Your task to perform on an android device: check out phone information Image 0: 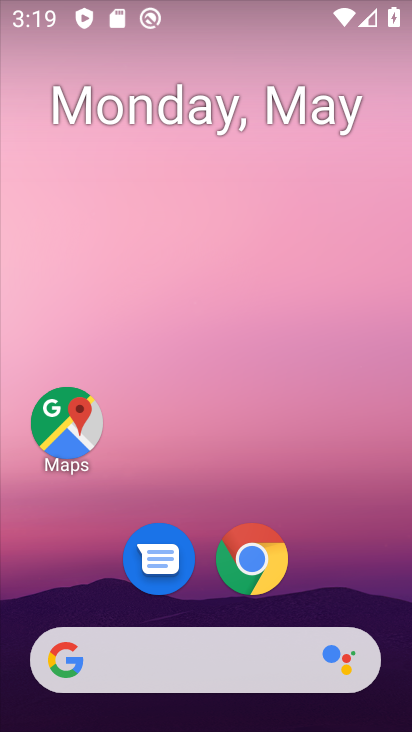
Step 0: drag from (251, 685) to (187, 13)
Your task to perform on an android device: check out phone information Image 1: 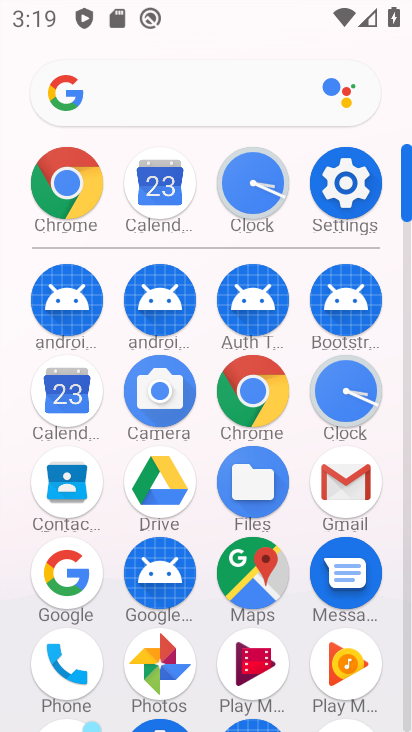
Step 1: click (338, 175)
Your task to perform on an android device: check out phone information Image 2: 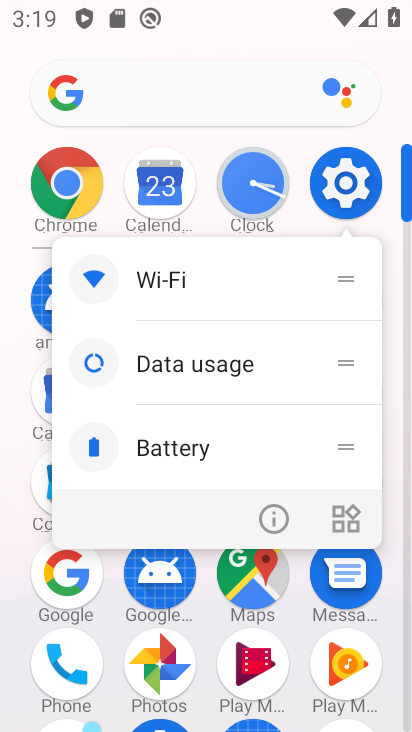
Step 2: click (346, 191)
Your task to perform on an android device: check out phone information Image 3: 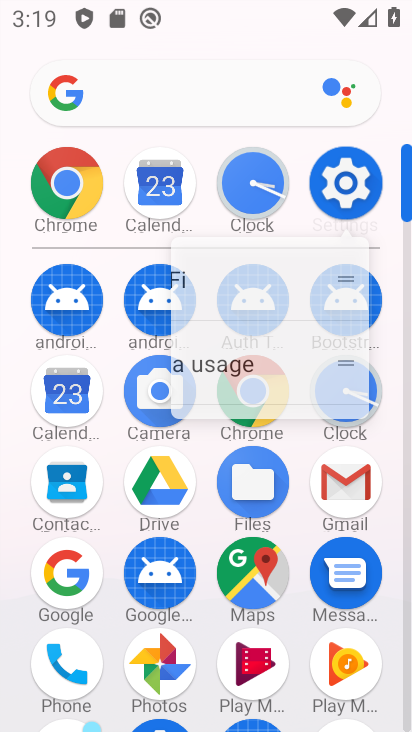
Step 3: click (346, 190)
Your task to perform on an android device: check out phone information Image 4: 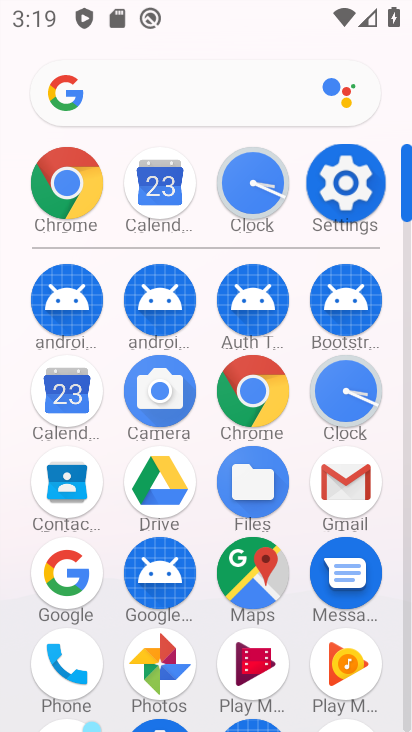
Step 4: click (346, 188)
Your task to perform on an android device: check out phone information Image 5: 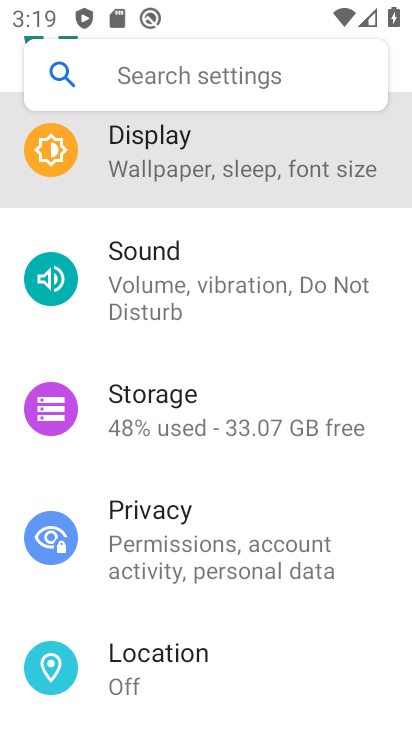
Step 5: click (346, 188)
Your task to perform on an android device: check out phone information Image 6: 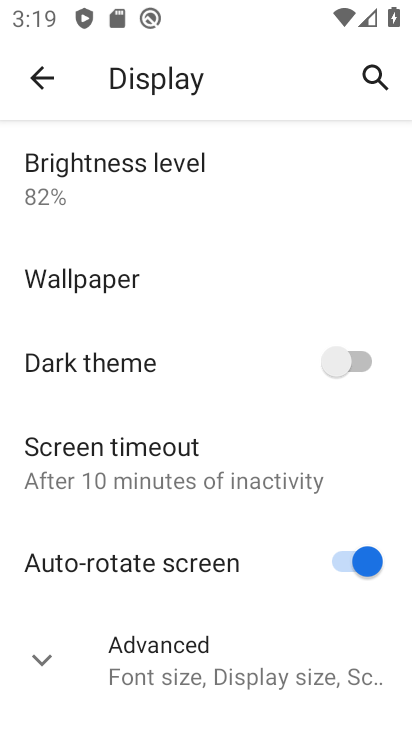
Step 6: click (38, 68)
Your task to perform on an android device: check out phone information Image 7: 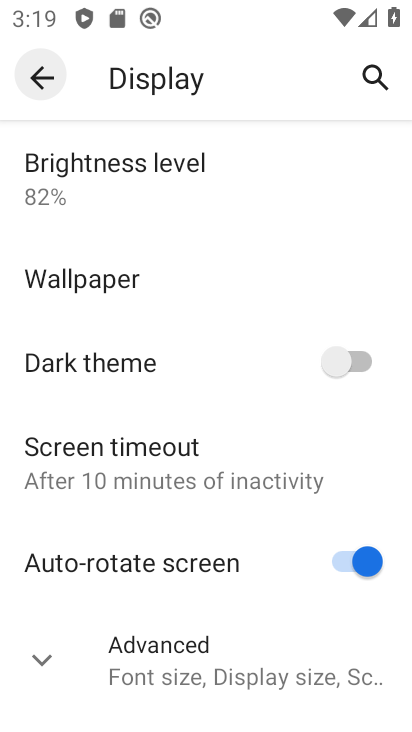
Step 7: click (38, 68)
Your task to perform on an android device: check out phone information Image 8: 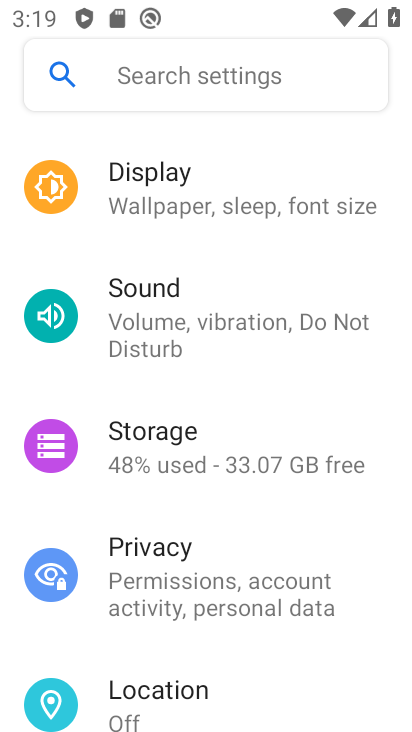
Step 8: click (38, 68)
Your task to perform on an android device: check out phone information Image 9: 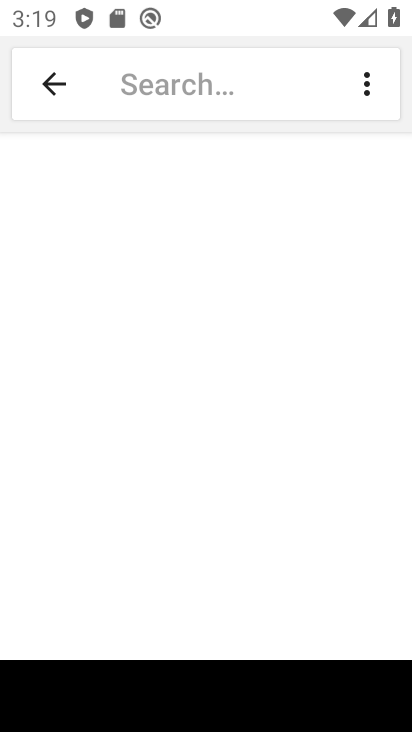
Step 9: click (48, 93)
Your task to perform on an android device: check out phone information Image 10: 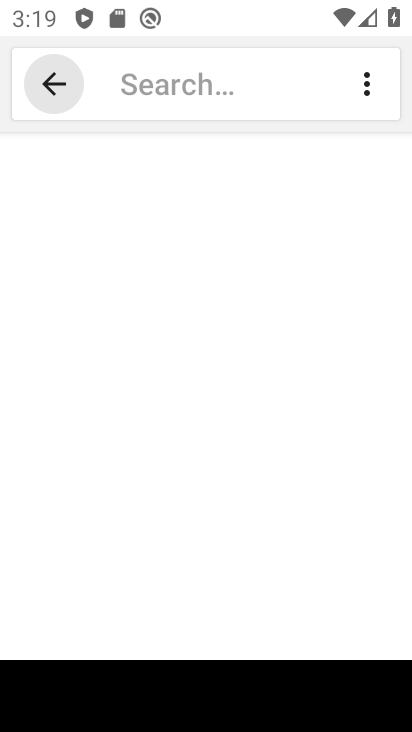
Step 10: click (47, 84)
Your task to perform on an android device: check out phone information Image 11: 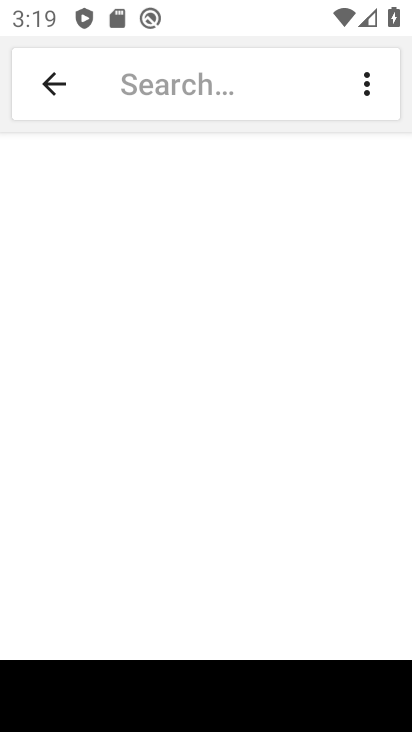
Step 11: click (48, 100)
Your task to perform on an android device: check out phone information Image 12: 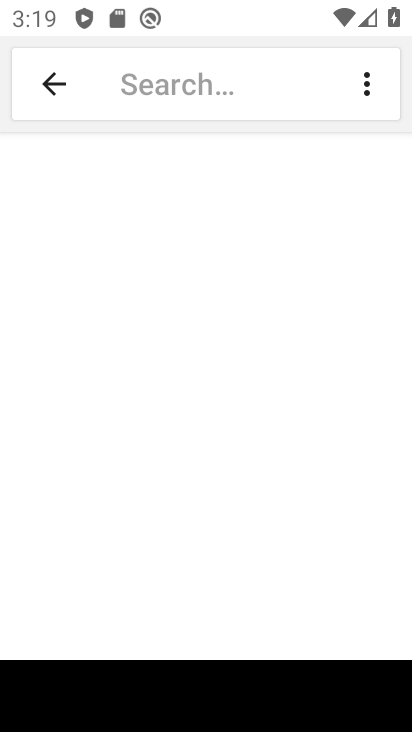
Step 12: click (52, 74)
Your task to perform on an android device: check out phone information Image 13: 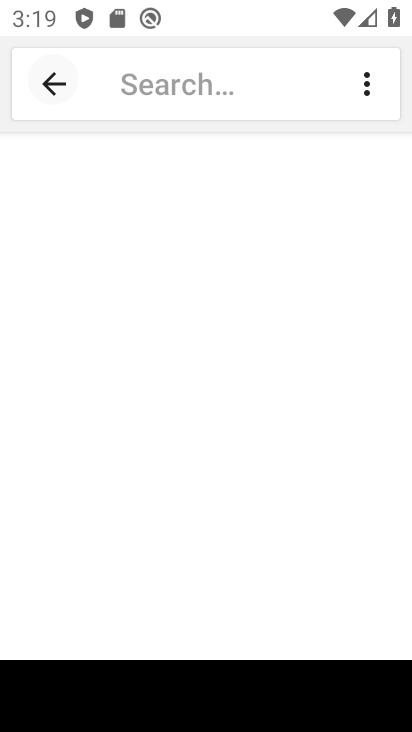
Step 13: click (52, 74)
Your task to perform on an android device: check out phone information Image 14: 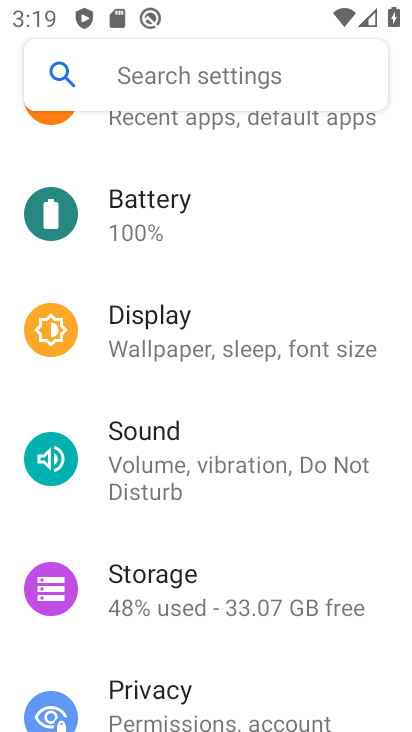
Step 14: drag from (169, 435) to (142, 223)
Your task to perform on an android device: check out phone information Image 15: 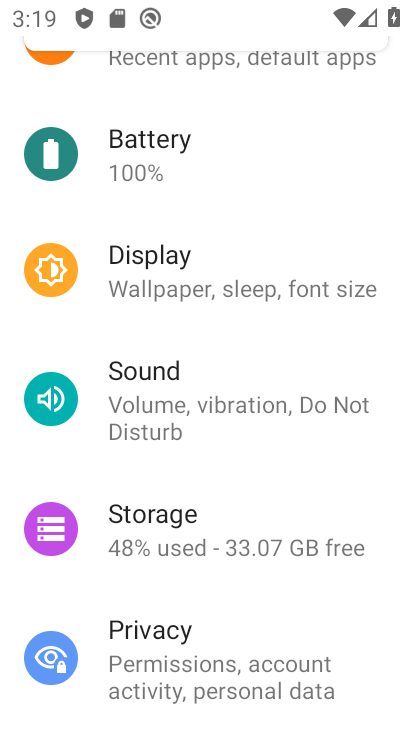
Step 15: drag from (187, 431) to (154, 144)
Your task to perform on an android device: check out phone information Image 16: 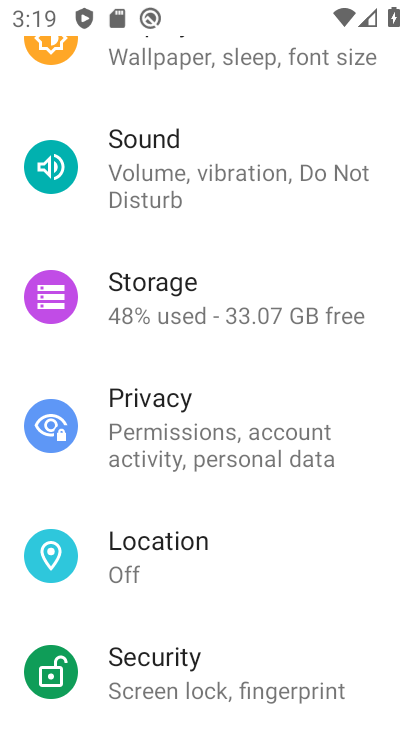
Step 16: drag from (190, 504) to (107, 225)
Your task to perform on an android device: check out phone information Image 17: 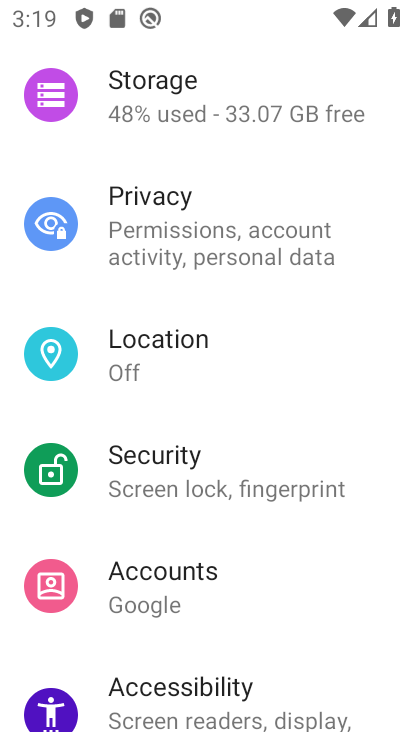
Step 17: drag from (217, 625) to (80, 114)
Your task to perform on an android device: check out phone information Image 18: 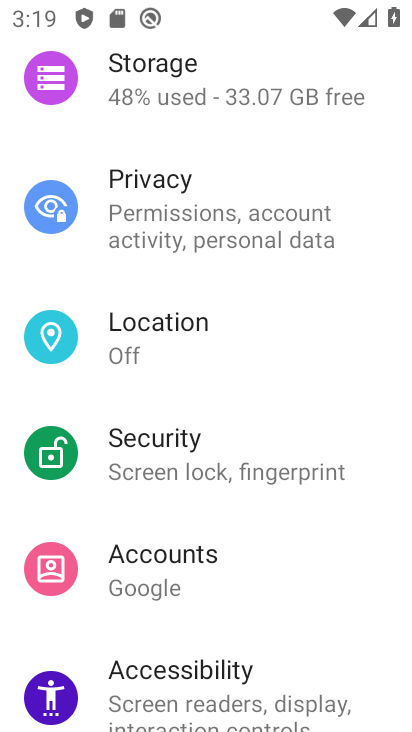
Step 18: drag from (127, 256) to (156, 24)
Your task to perform on an android device: check out phone information Image 19: 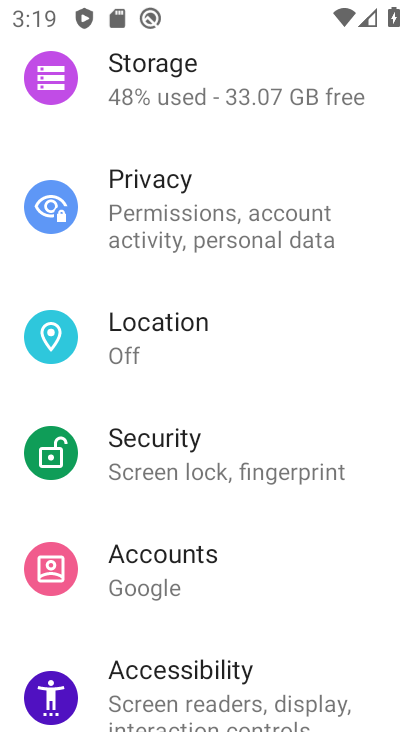
Step 19: click (193, 173)
Your task to perform on an android device: check out phone information Image 20: 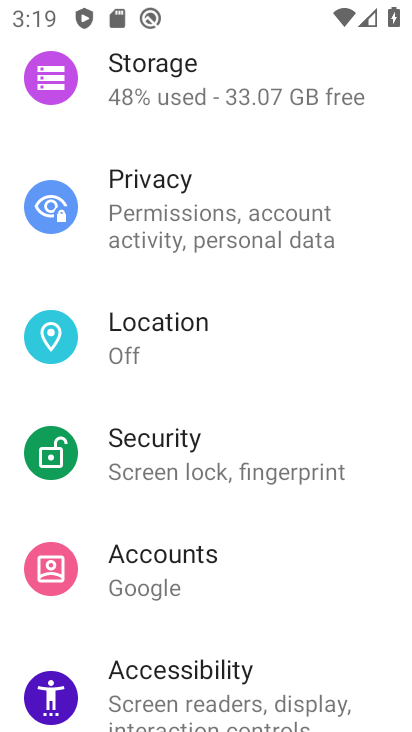
Step 20: drag from (227, 580) to (120, 255)
Your task to perform on an android device: check out phone information Image 21: 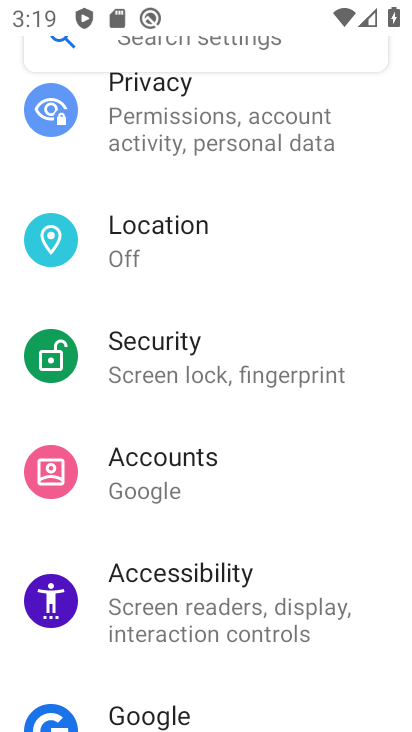
Step 21: drag from (196, 545) to (151, 233)
Your task to perform on an android device: check out phone information Image 22: 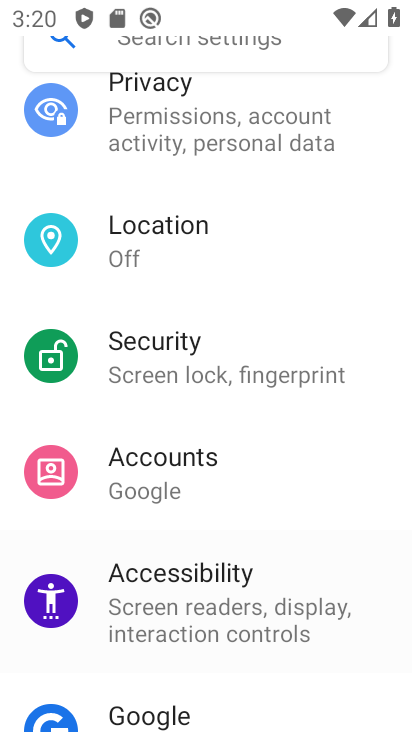
Step 22: drag from (217, 12) to (163, 34)
Your task to perform on an android device: check out phone information Image 23: 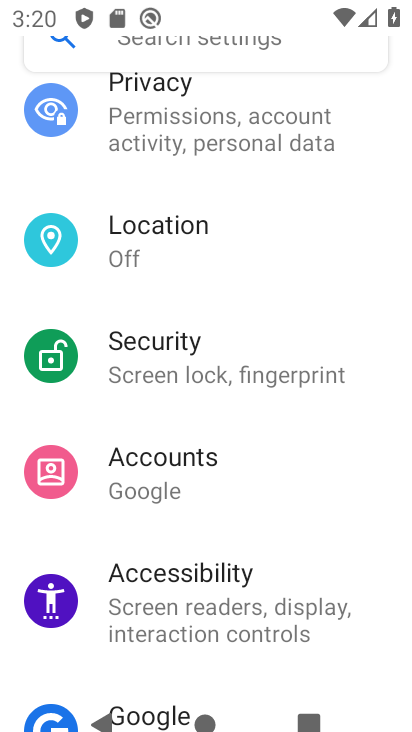
Step 23: drag from (154, 612) to (135, 193)
Your task to perform on an android device: check out phone information Image 24: 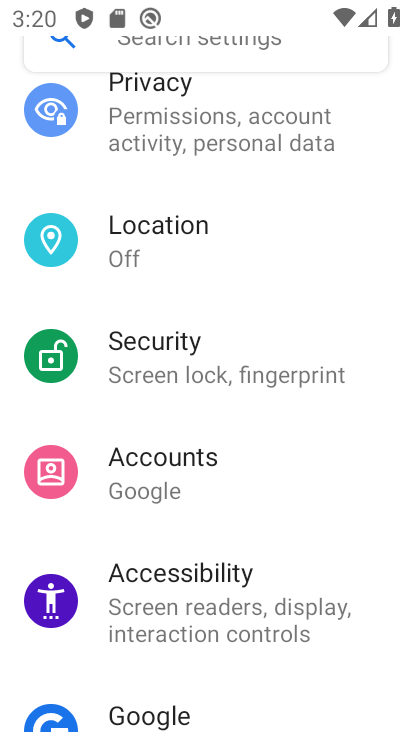
Step 24: click (201, 49)
Your task to perform on an android device: check out phone information Image 25: 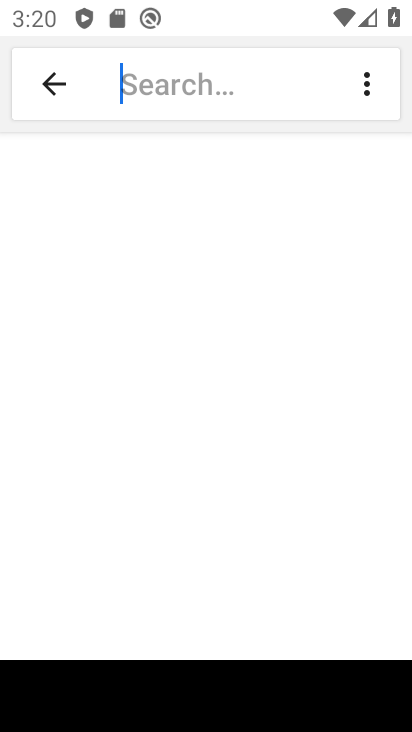
Step 25: drag from (238, 9) to (212, 111)
Your task to perform on an android device: check out phone information Image 26: 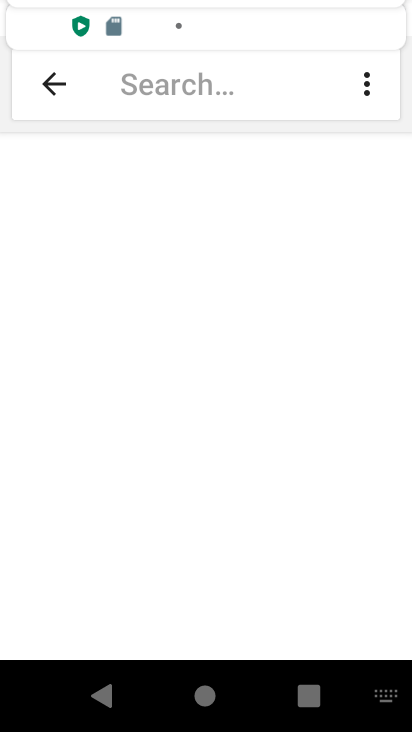
Step 26: click (55, 78)
Your task to perform on an android device: check out phone information Image 27: 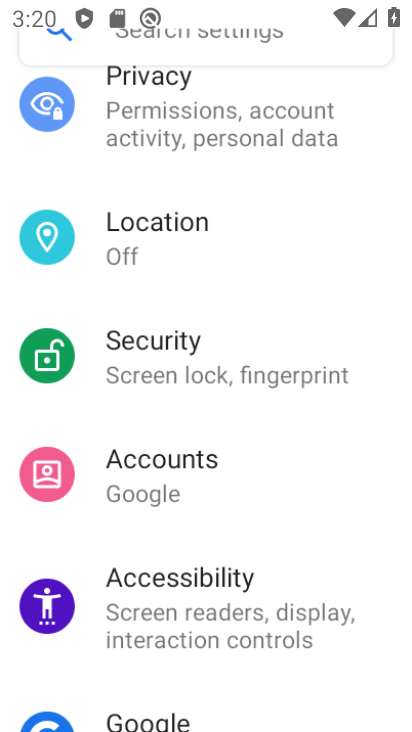
Step 27: click (48, 85)
Your task to perform on an android device: check out phone information Image 28: 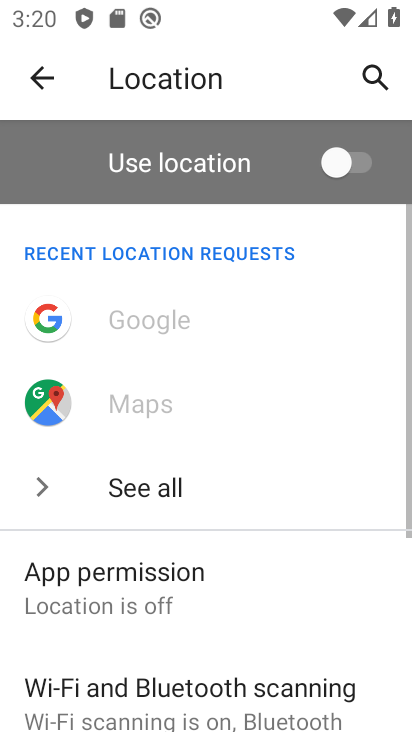
Step 28: click (44, 83)
Your task to perform on an android device: check out phone information Image 29: 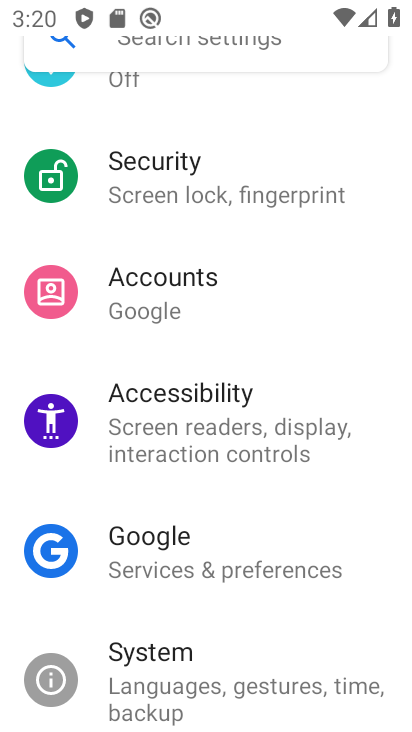
Step 29: task complete